Your task to perform on an android device: set the timer Image 0: 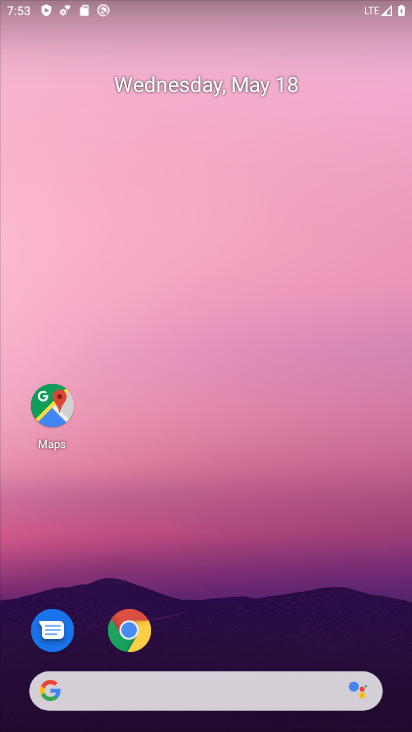
Step 0: drag from (219, 531) to (123, 171)
Your task to perform on an android device: set the timer Image 1: 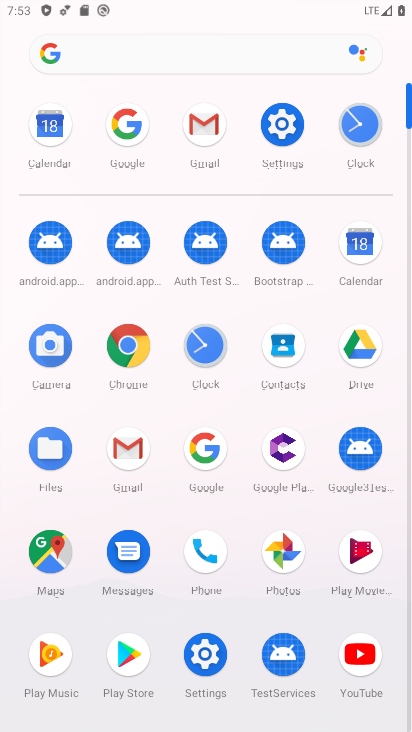
Step 1: click (362, 120)
Your task to perform on an android device: set the timer Image 2: 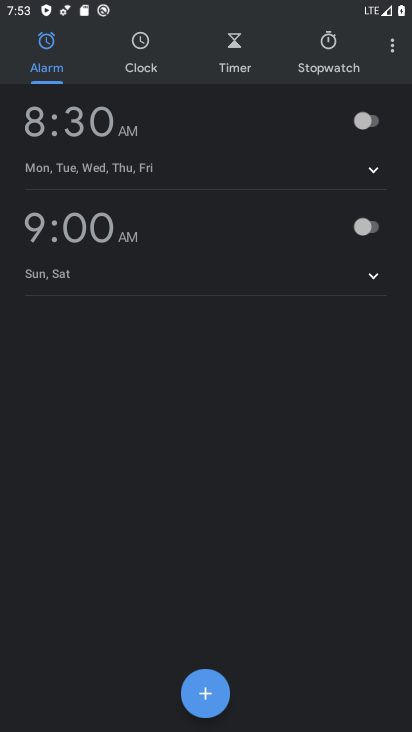
Step 2: click (393, 54)
Your task to perform on an android device: set the timer Image 3: 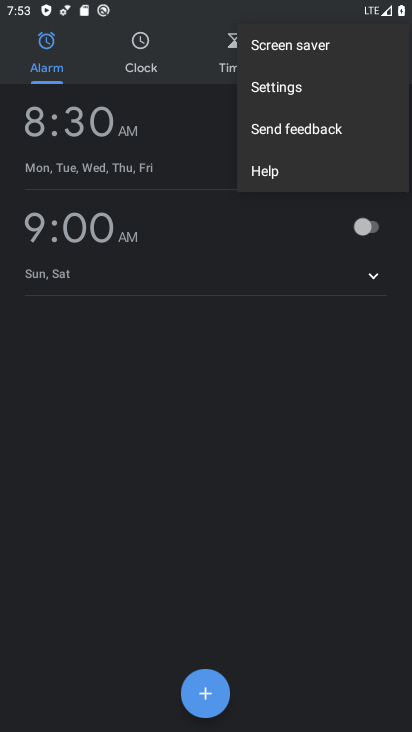
Step 3: click (294, 86)
Your task to perform on an android device: set the timer Image 4: 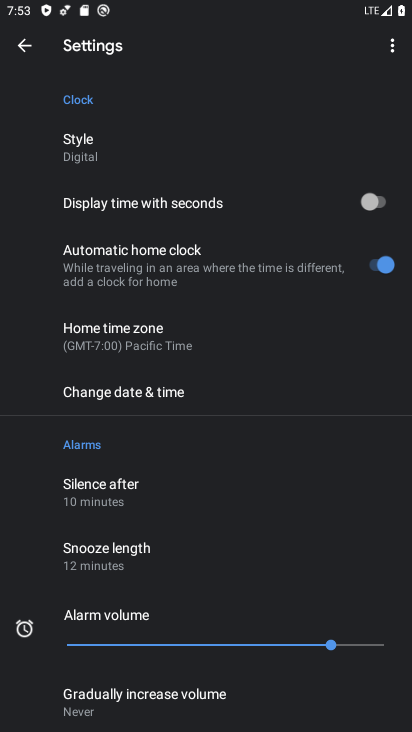
Step 4: drag from (211, 481) to (193, 136)
Your task to perform on an android device: set the timer Image 5: 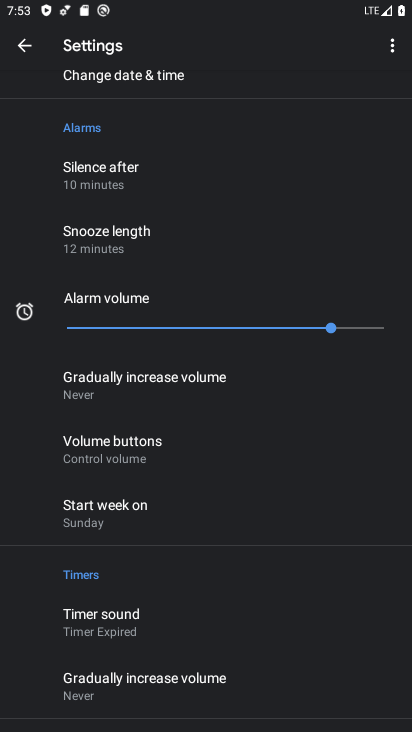
Step 5: click (125, 617)
Your task to perform on an android device: set the timer Image 6: 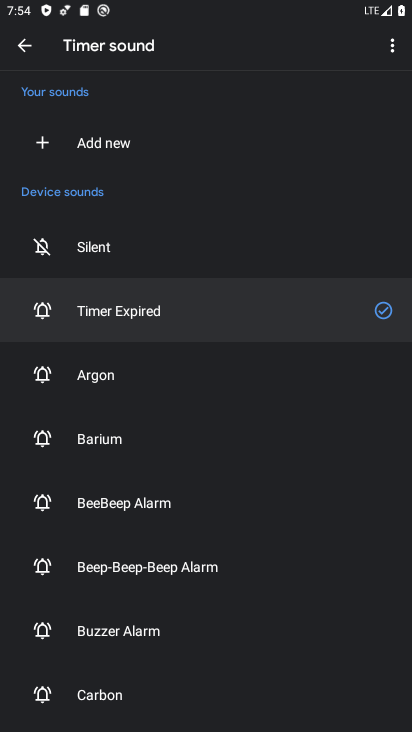
Step 6: task complete